Your task to perform on an android device: turn off airplane mode Image 0: 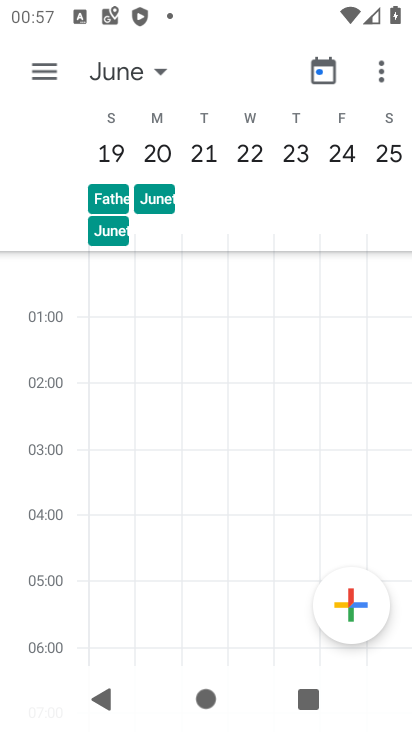
Step 0: press home button
Your task to perform on an android device: turn off airplane mode Image 1: 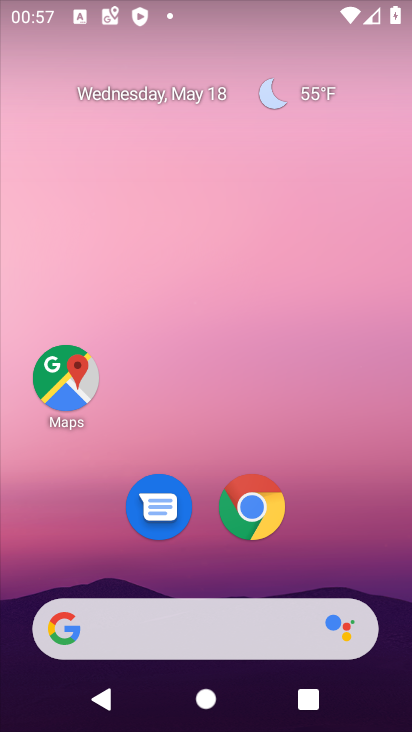
Step 1: drag from (407, 622) to (298, 132)
Your task to perform on an android device: turn off airplane mode Image 2: 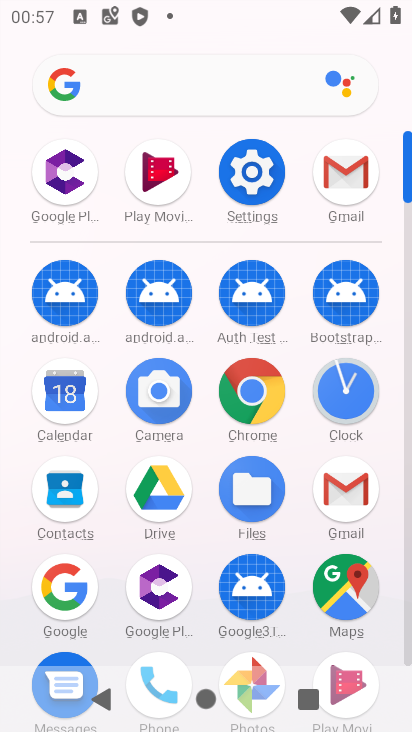
Step 2: click (408, 649)
Your task to perform on an android device: turn off airplane mode Image 3: 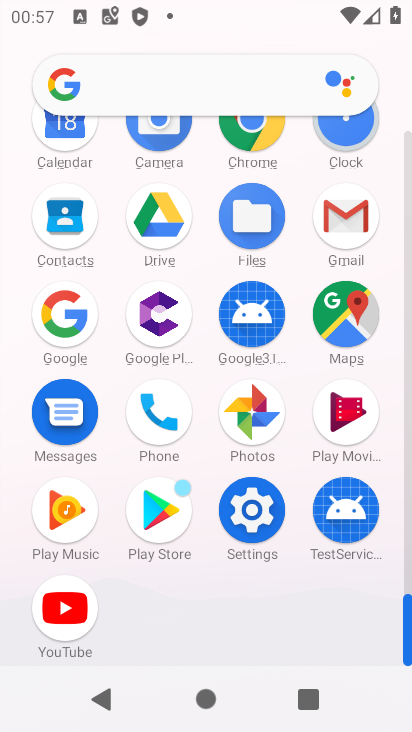
Step 3: click (250, 508)
Your task to perform on an android device: turn off airplane mode Image 4: 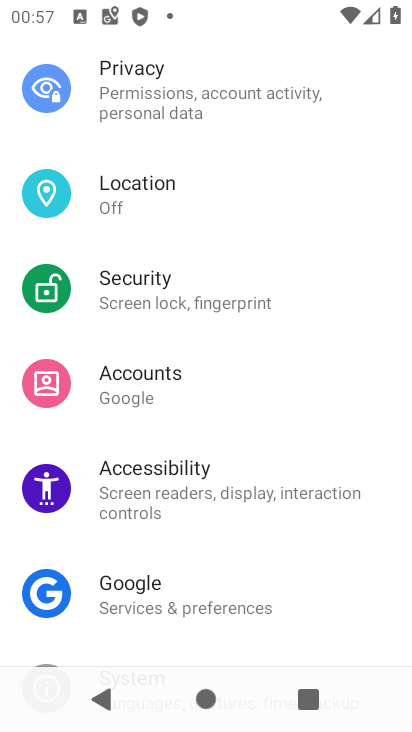
Step 4: drag from (344, 97) to (303, 438)
Your task to perform on an android device: turn off airplane mode Image 5: 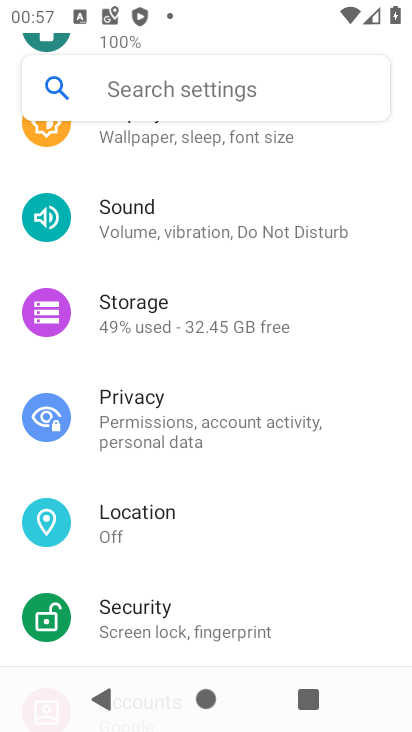
Step 5: drag from (371, 206) to (335, 524)
Your task to perform on an android device: turn off airplane mode Image 6: 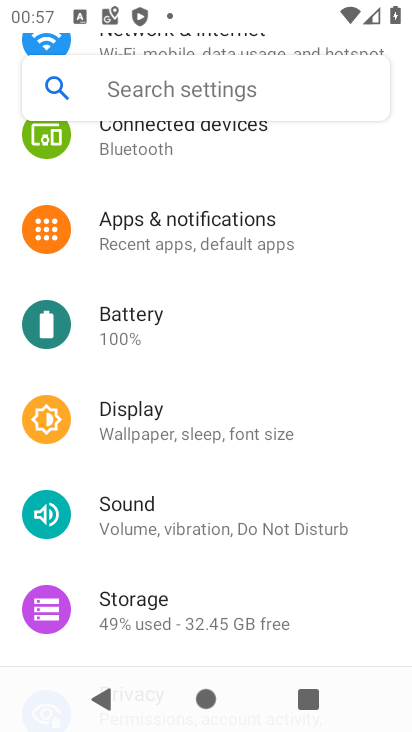
Step 6: drag from (336, 222) to (333, 459)
Your task to perform on an android device: turn off airplane mode Image 7: 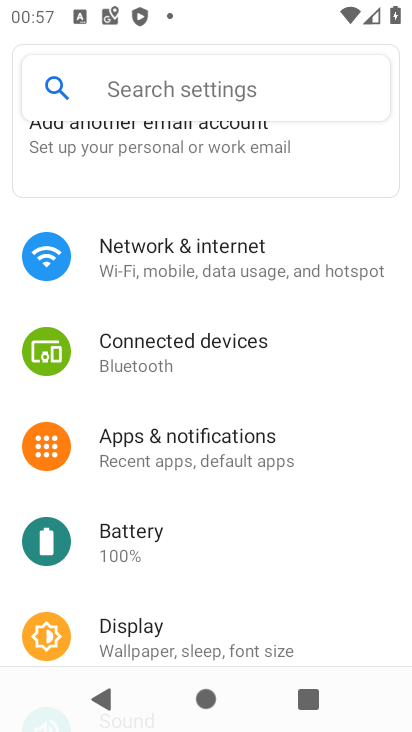
Step 7: click (122, 246)
Your task to perform on an android device: turn off airplane mode Image 8: 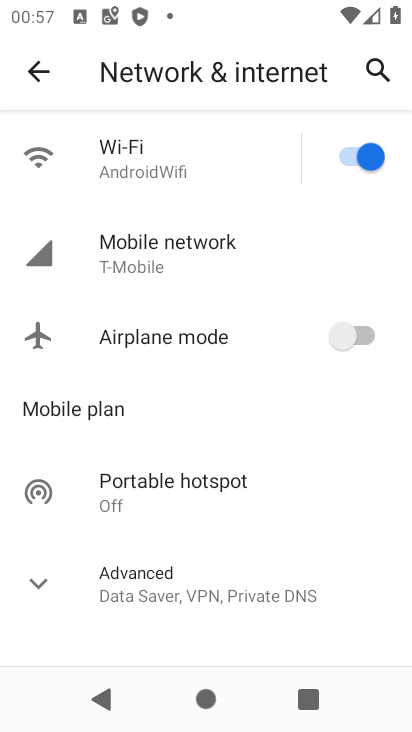
Step 8: task complete